Your task to perform on an android device: Go to accessibility settings Image 0: 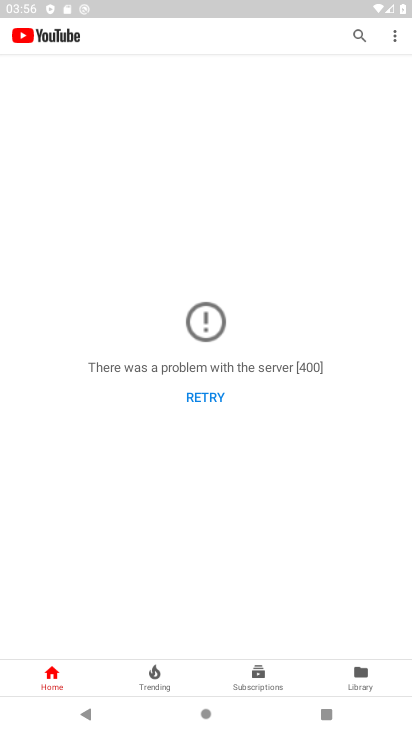
Step 0: press home button
Your task to perform on an android device: Go to accessibility settings Image 1: 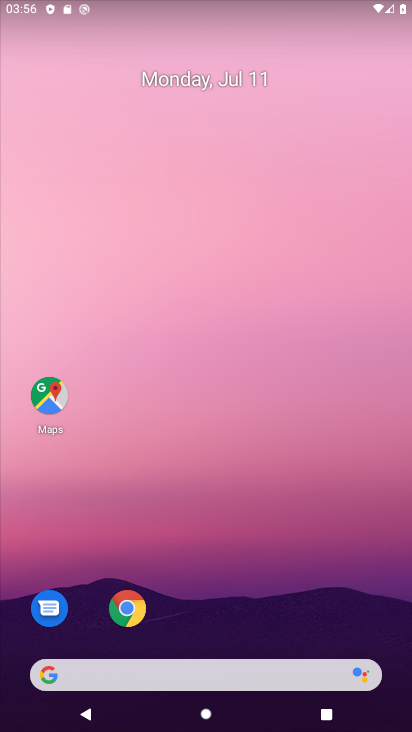
Step 1: drag from (272, 717) to (313, 1)
Your task to perform on an android device: Go to accessibility settings Image 2: 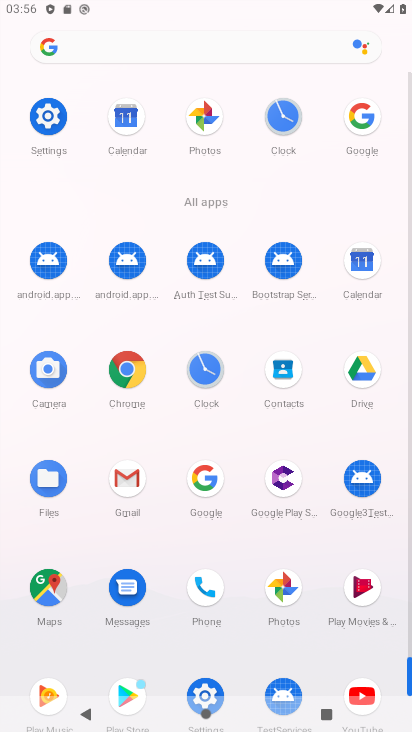
Step 2: click (58, 118)
Your task to perform on an android device: Go to accessibility settings Image 3: 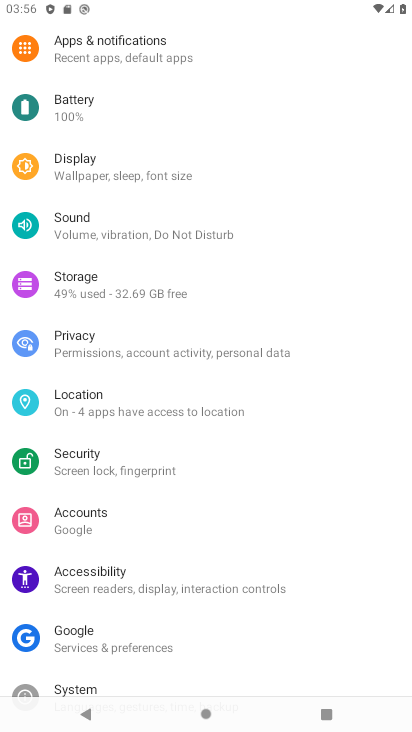
Step 3: click (196, 594)
Your task to perform on an android device: Go to accessibility settings Image 4: 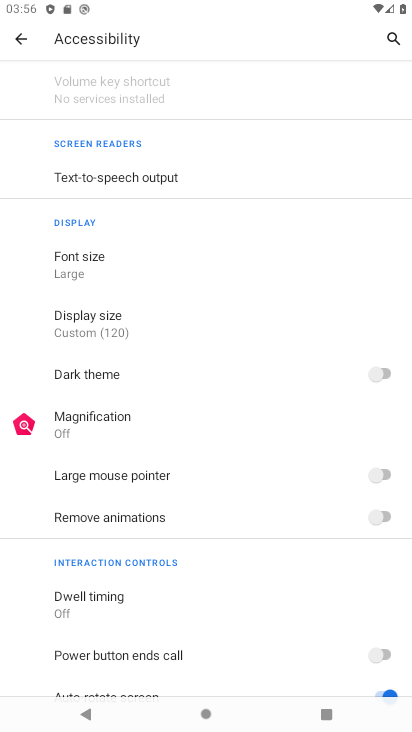
Step 4: task complete